Your task to perform on an android device: open chrome privacy settings Image 0: 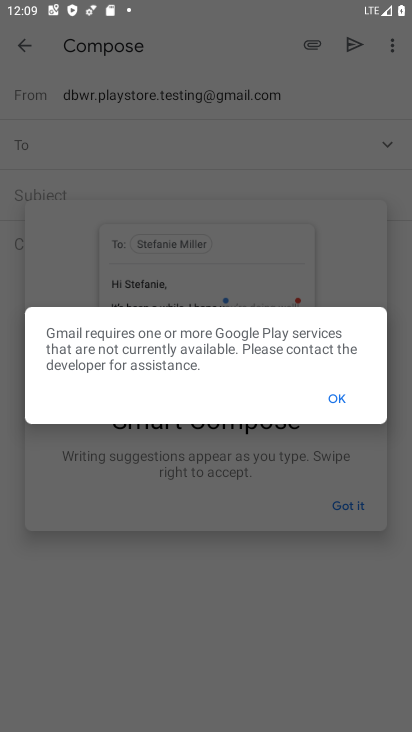
Step 0: press home button
Your task to perform on an android device: open chrome privacy settings Image 1: 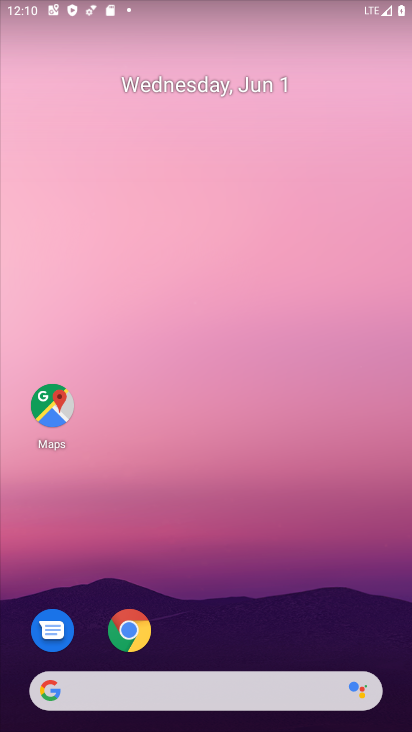
Step 1: click (135, 630)
Your task to perform on an android device: open chrome privacy settings Image 2: 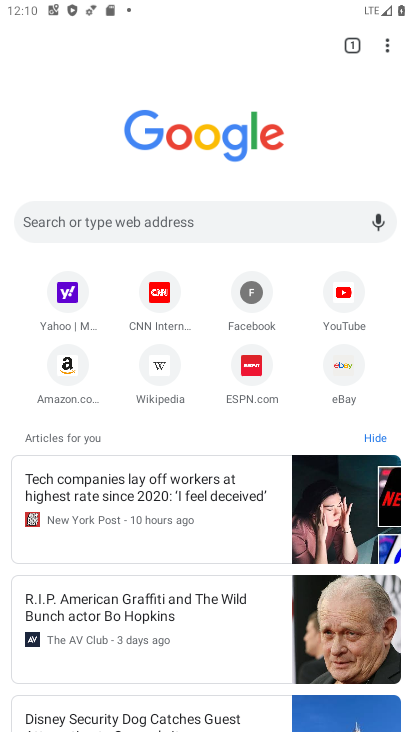
Step 2: drag from (394, 45) to (232, 387)
Your task to perform on an android device: open chrome privacy settings Image 3: 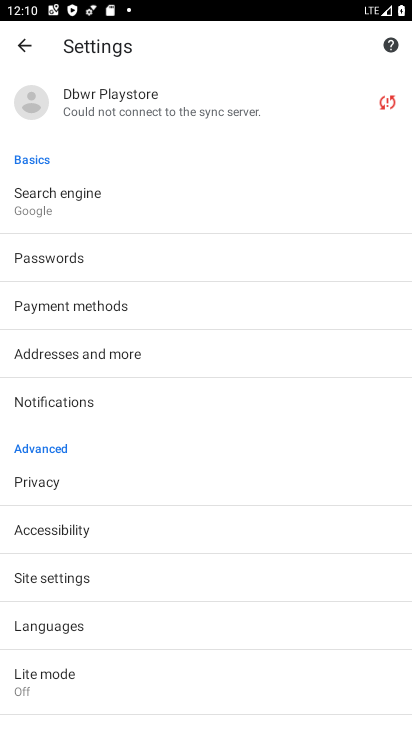
Step 3: click (111, 476)
Your task to perform on an android device: open chrome privacy settings Image 4: 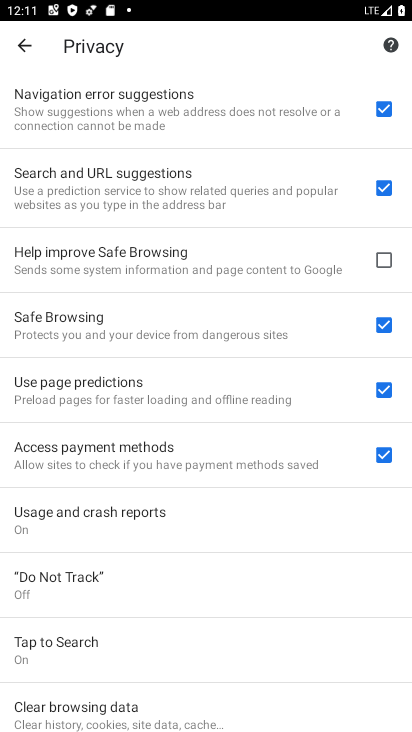
Step 4: task complete